Your task to perform on an android device: Open location settings Image 0: 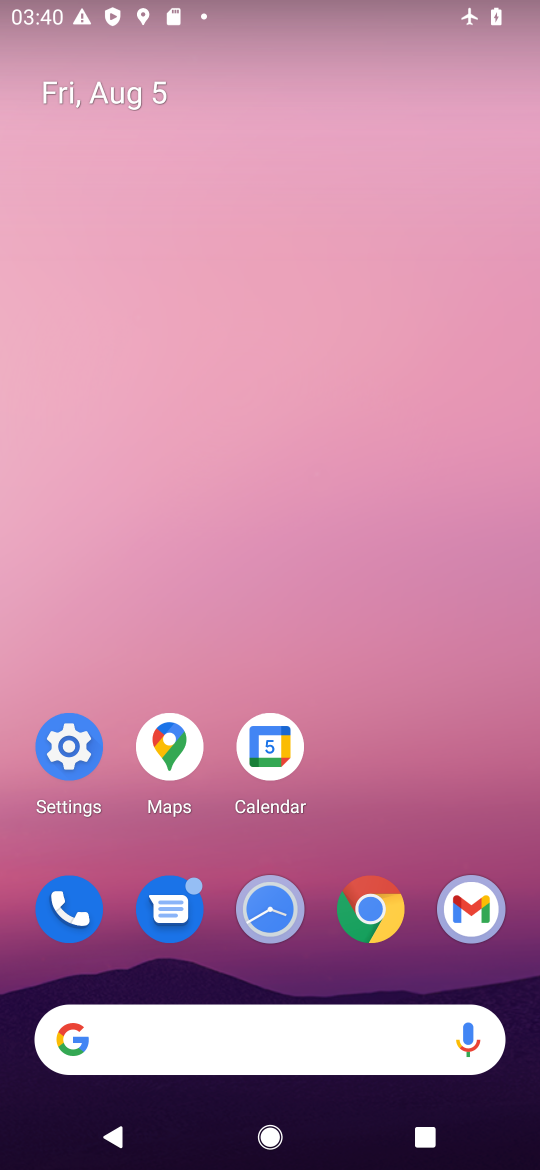
Step 0: click (70, 747)
Your task to perform on an android device: Open location settings Image 1: 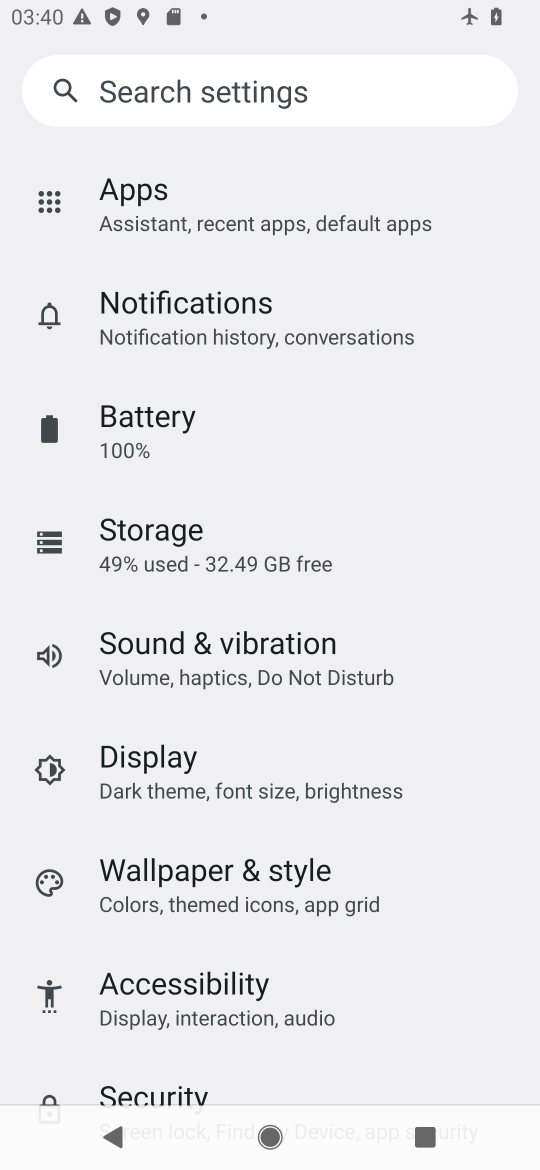
Step 1: drag from (361, 941) to (384, 277)
Your task to perform on an android device: Open location settings Image 2: 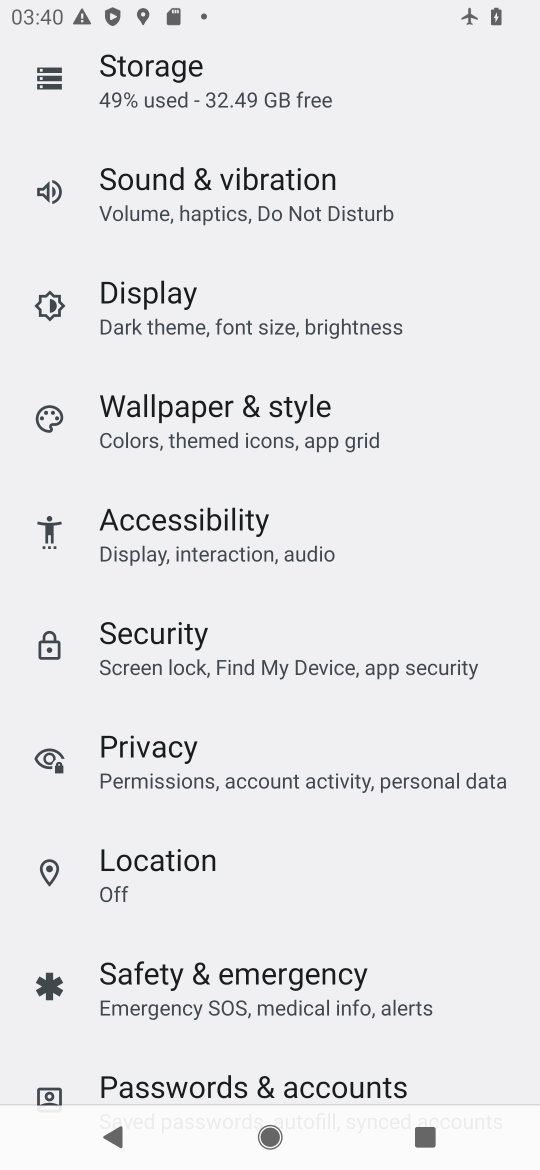
Step 2: click (158, 854)
Your task to perform on an android device: Open location settings Image 3: 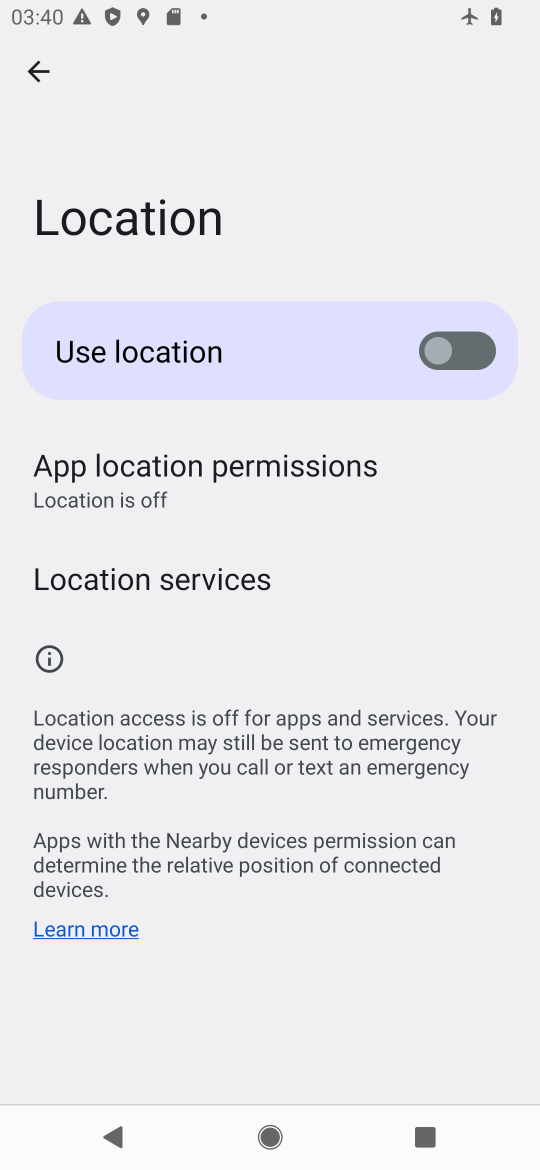
Step 3: task complete